Your task to perform on an android device: Open the Play Movies app and select the watchlist tab. Image 0: 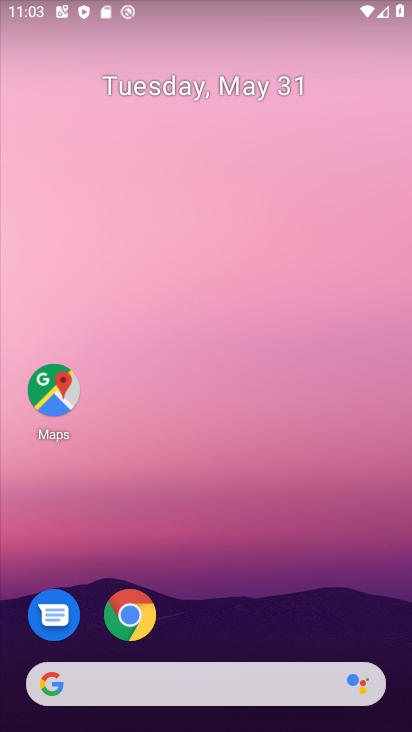
Step 0: task impossible